Your task to perform on an android device: delete location history Image 0: 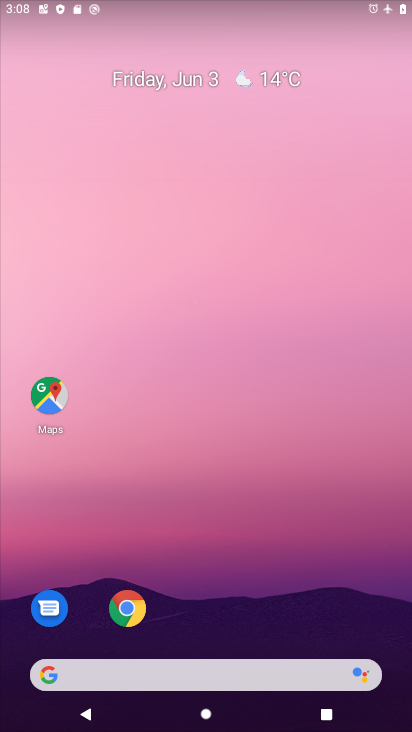
Step 0: click (52, 403)
Your task to perform on an android device: delete location history Image 1: 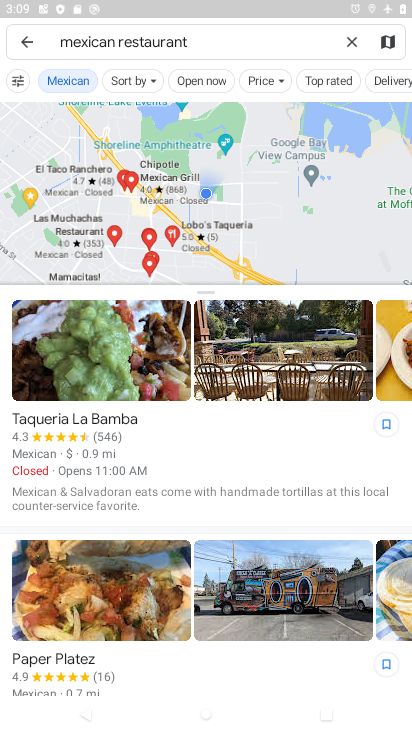
Step 1: click (34, 46)
Your task to perform on an android device: delete location history Image 2: 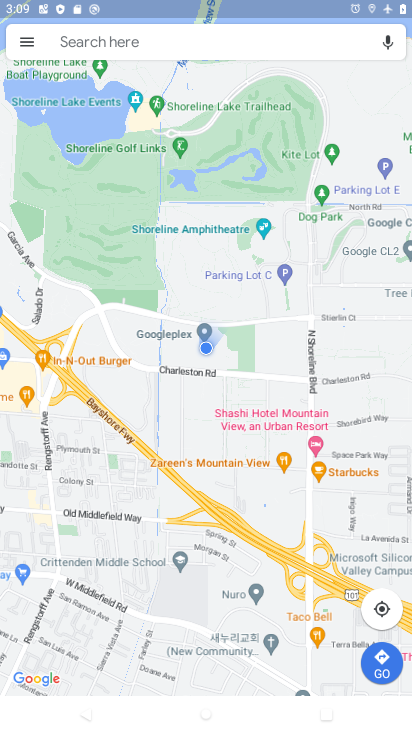
Step 2: click (27, 41)
Your task to perform on an android device: delete location history Image 3: 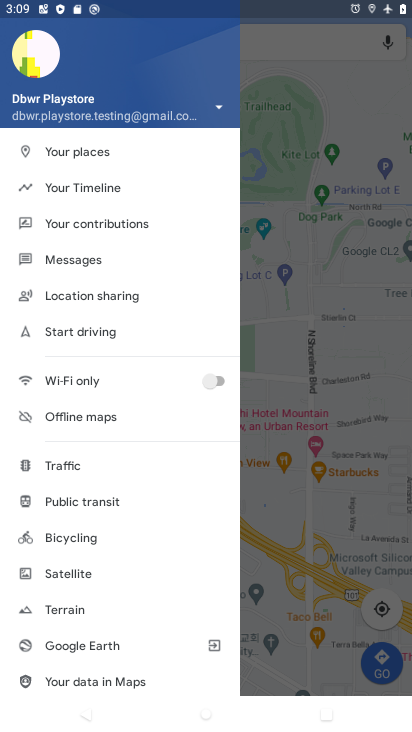
Step 3: click (89, 191)
Your task to perform on an android device: delete location history Image 4: 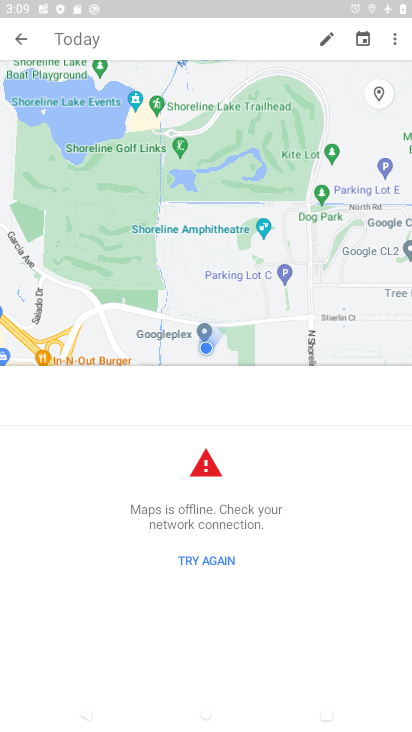
Step 4: click (394, 41)
Your task to perform on an android device: delete location history Image 5: 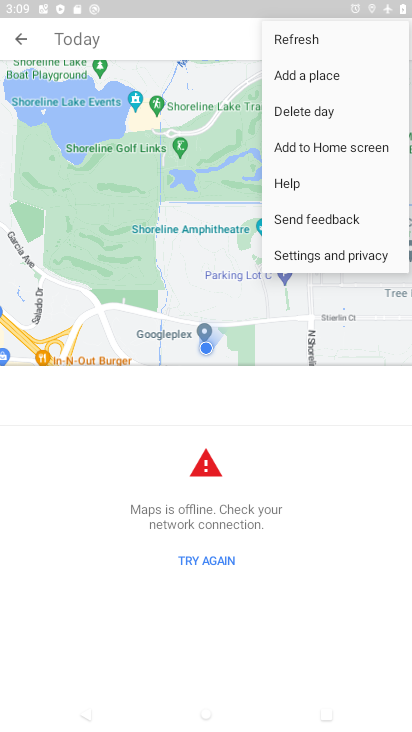
Step 5: click (317, 252)
Your task to perform on an android device: delete location history Image 6: 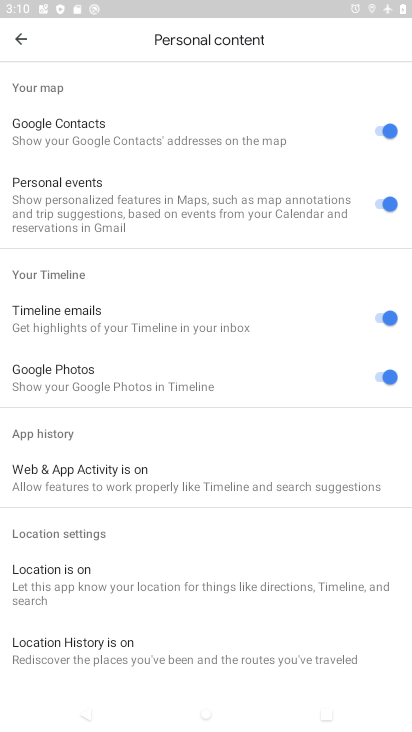
Step 6: drag from (172, 560) to (233, 174)
Your task to perform on an android device: delete location history Image 7: 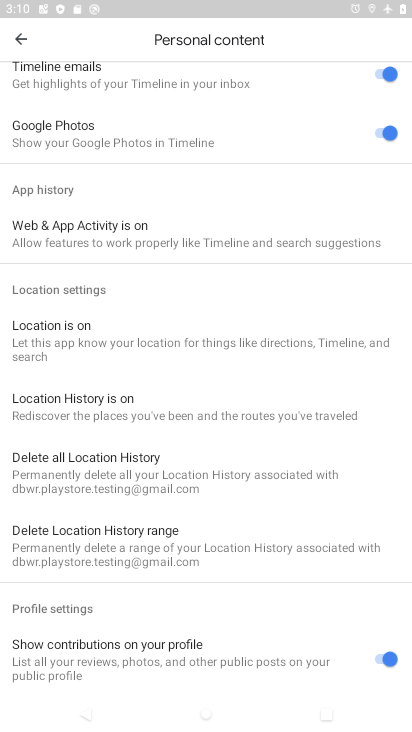
Step 7: click (224, 488)
Your task to perform on an android device: delete location history Image 8: 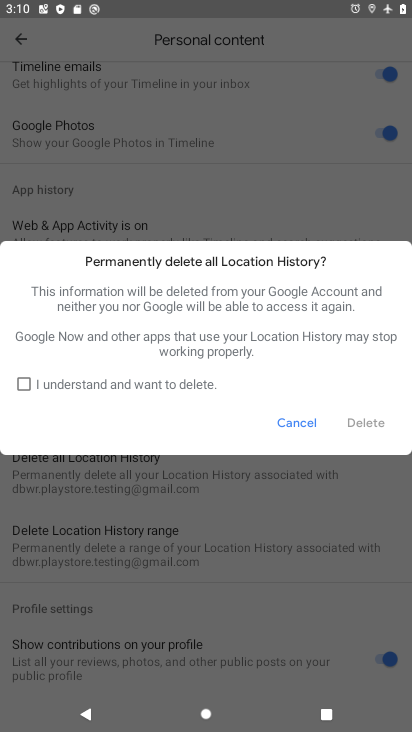
Step 8: click (148, 384)
Your task to perform on an android device: delete location history Image 9: 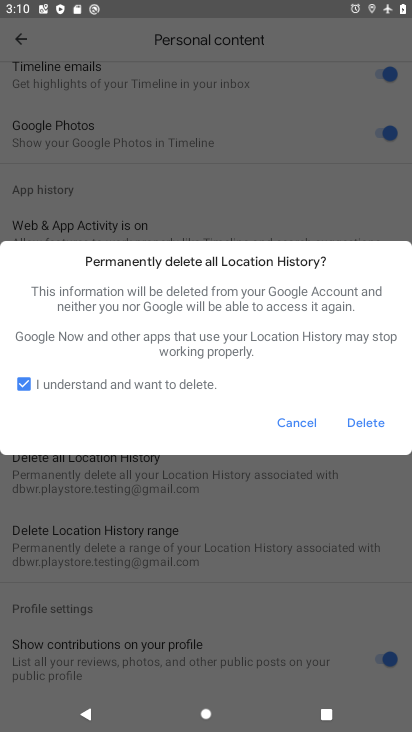
Step 9: click (369, 428)
Your task to perform on an android device: delete location history Image 10: 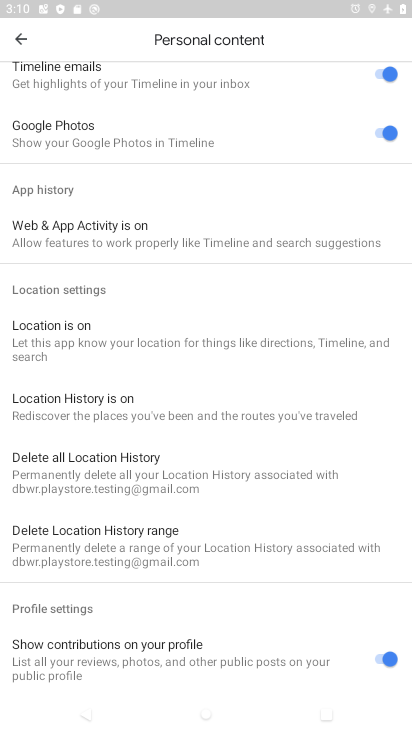
Step 10: task complete